Your task to perform on an android device: Open ESPN.com Image 0: 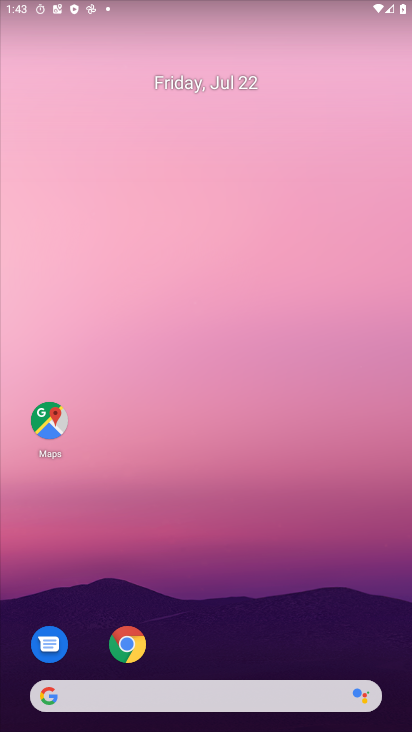
Step 0: drag from (178, 617) to (193, 195)
Your task to perform on an android device: Open ESPN.com Image 1: 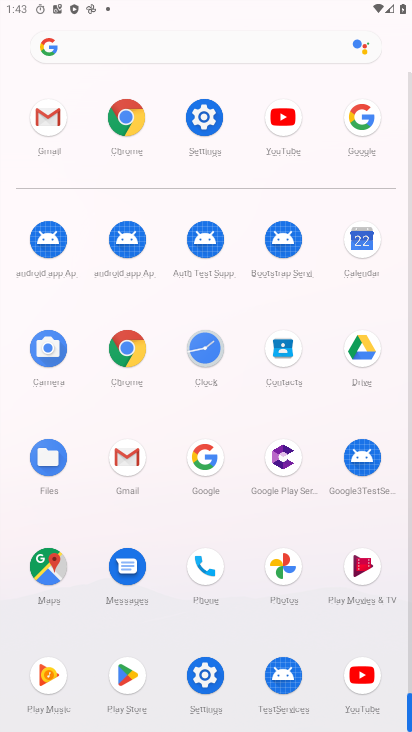
Step 1: click (131, 139)
Your task to perform on an android device: Open ESPN.com Image 2: 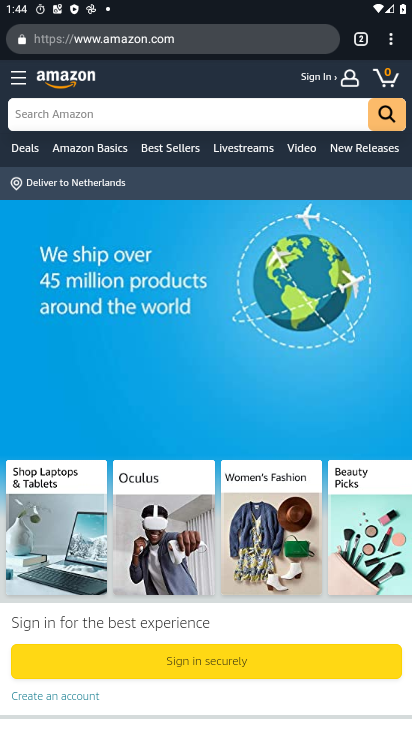
Step 2: click (229, 48)
Your task to perform on an android device: Open ESPN.com Image 3: 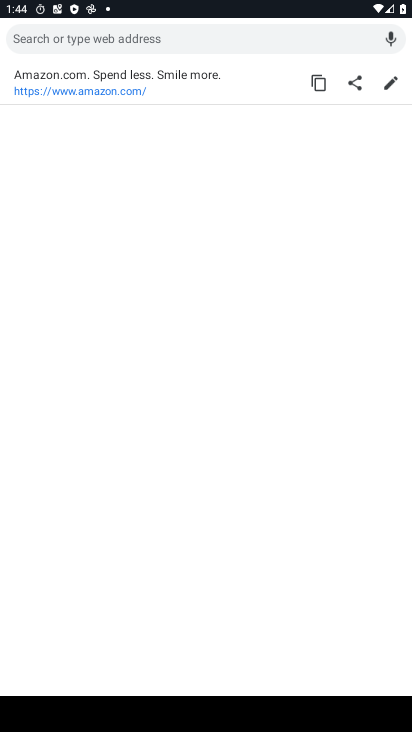
Step 3: type "espn"
Your task to perform on an android device: Open ESPN.com Image 4: 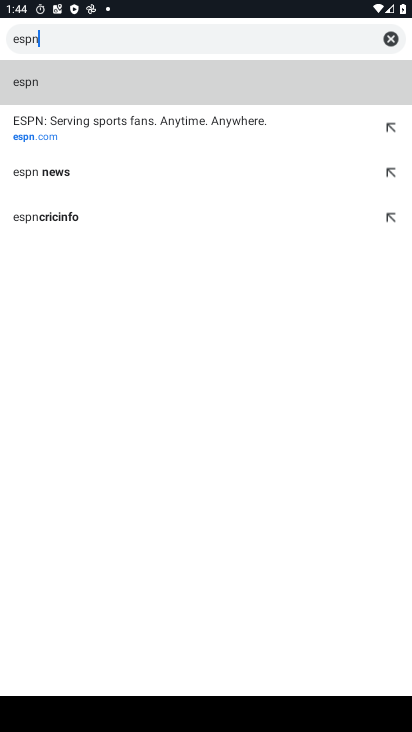
Step 4: click (198, 125)
Your task to perform on an android device: Open ESPN.com Image 5: 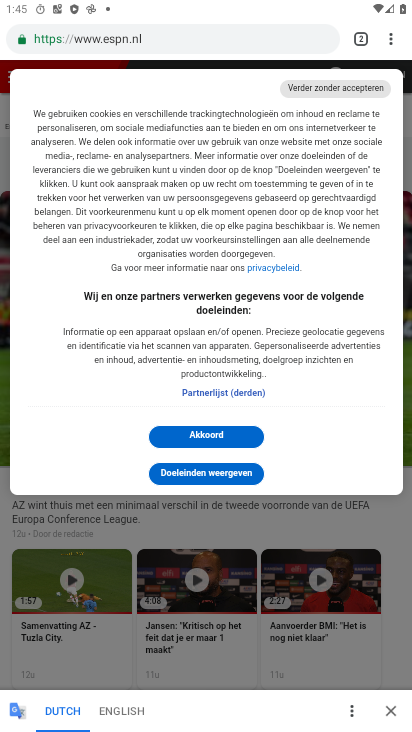
Step 5: task complete